Your task to perform on an android device: turn off notifications settings in the gmail app Image 0: 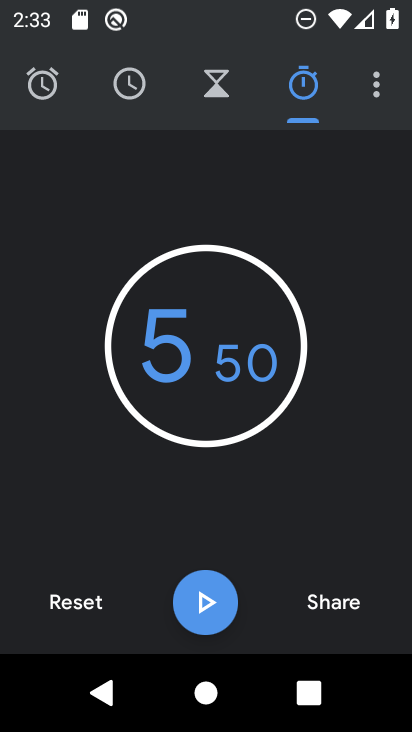
Step 0: press home button
Your task to perform on an android device: turn off notifications settings in the gmail app Image 1: 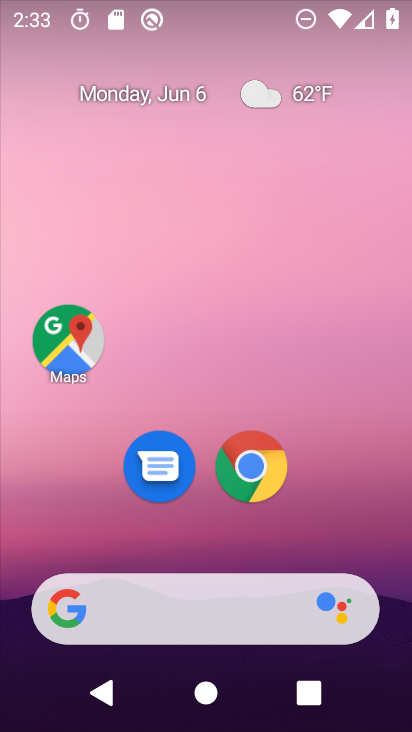
Step 1: drag from (214, 543) to (209, 142)
Your task to perform on an android device: turn off notifications settings in the gmail app Image 2: 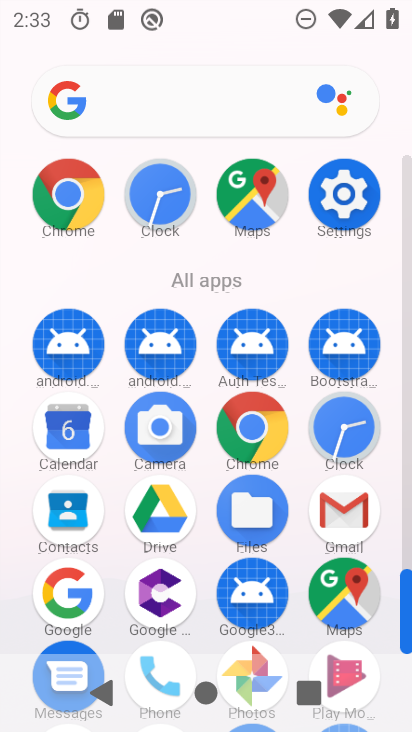
Step 2: click (330, 523)
Your task to perform on an android device: turn off notifications settings in the gmail app Image 3: 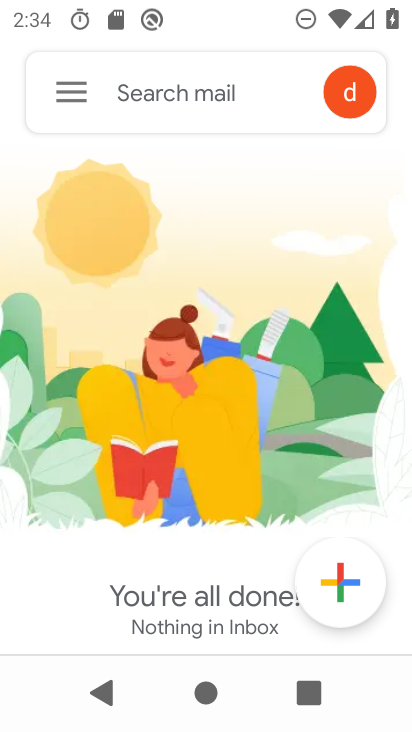
Step 3: click (79, 96)
Your task to perform on an android device: turn off notifications settings in the gmail app Image 4: 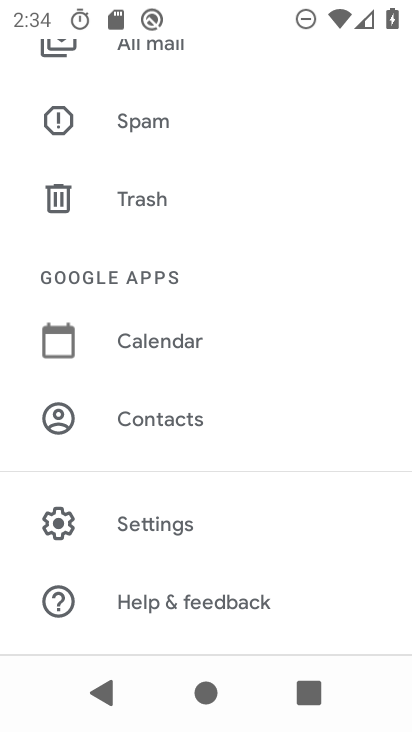
Step 4: drag from (188, 140) to (213, 399)
Your task to perform on an android device: turn off notifications settings in the gmail app Image 5: 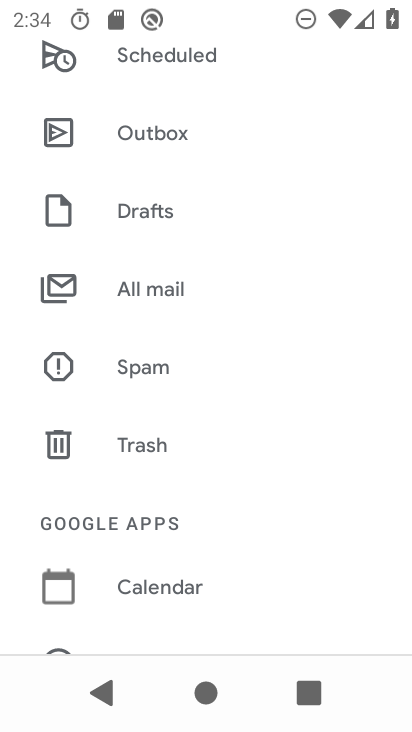
Step 5: drag from (199, 236) to (191, 467)
Your task to perform on an android device: turn off notifications settings in the gmail app Image 6: 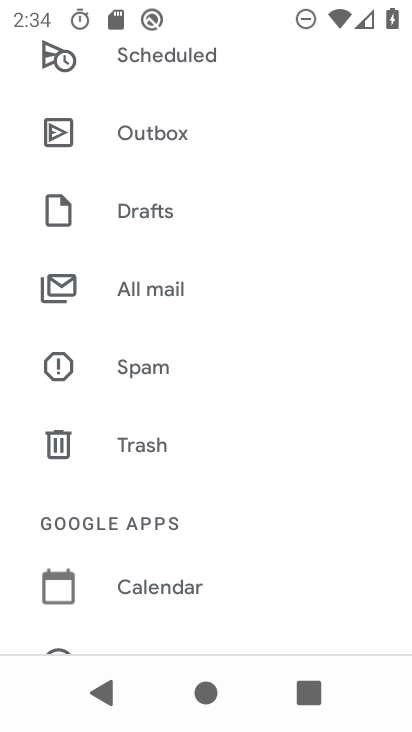
Step 6: drag from (189, 251) to (191, 559)
Your task to perform on an android device: turn off notifications settings in the gmail app Image 7: 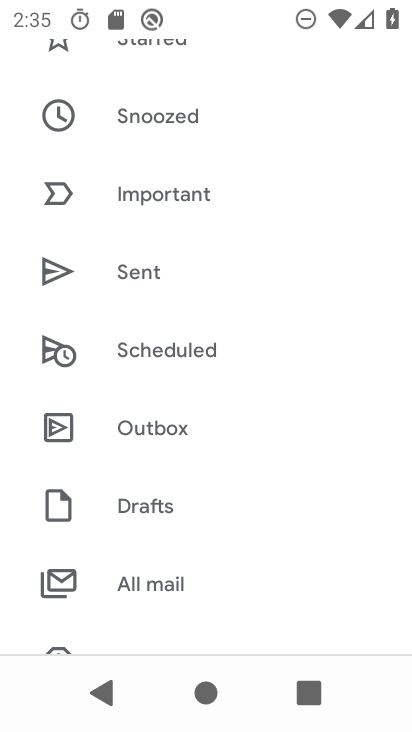
Step 7: drag from (175, 495) to (181, 88)
Your task to perform on an android device: turn off notifications settings in the gmail app Image 8: 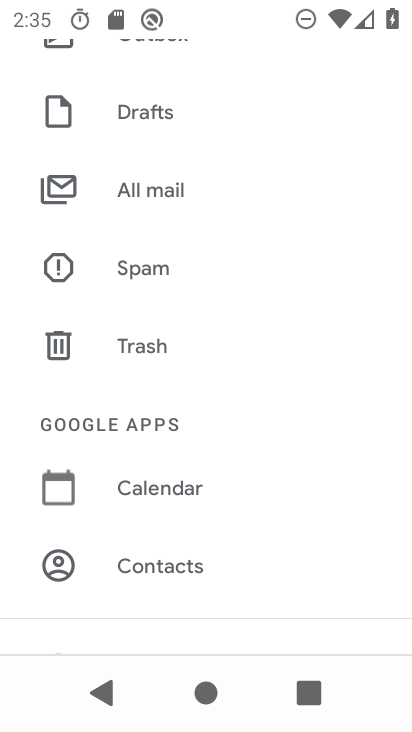
Step 8: drag from (186, 456) to (186, 191)
Your task to perform on an android device: turn off notifications settings in the gmail app Image 9: 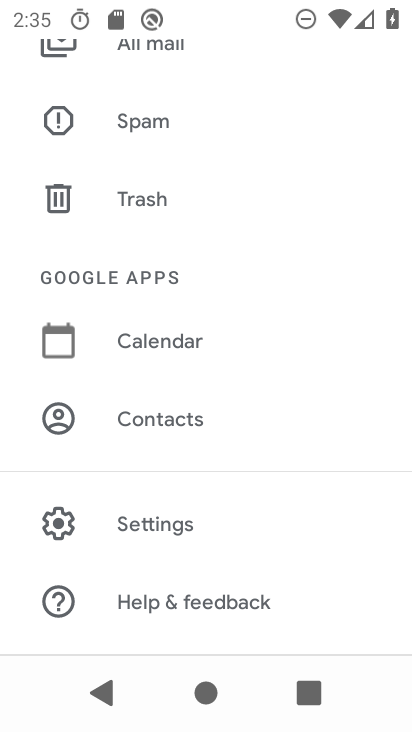
Step 9: click (158, 533)
Your task to perform on an android device: turn off notifications settings in the gmail app Image 10: 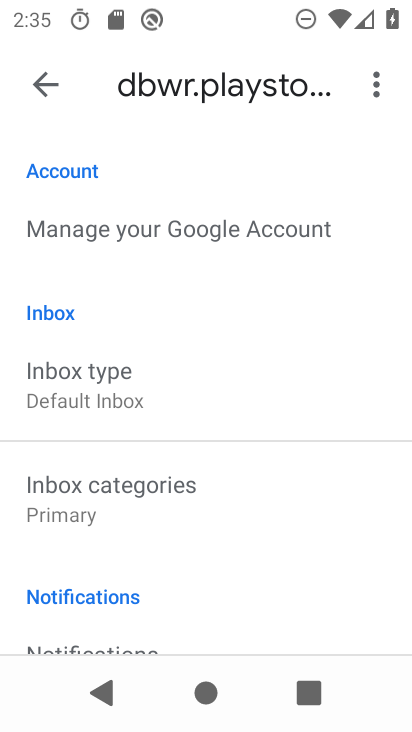
Step 10: drag from (143, 535) to (141, 301)
Your task to perform on an android device: turn off notifications settings in the gmail app Image 11: 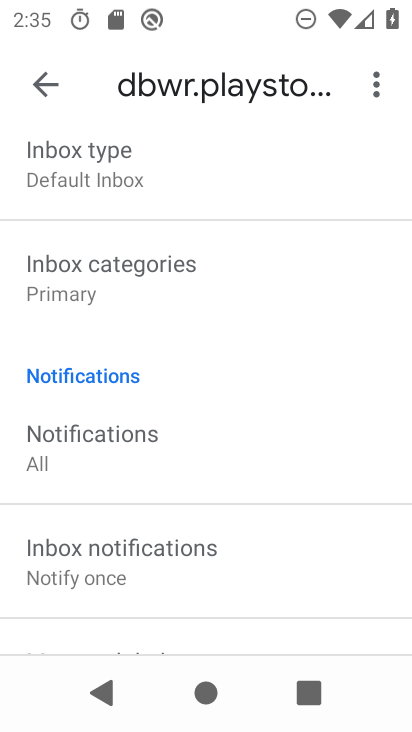
Step 11: drag from (173, 610) to (173, 374)
Your task to perform on an android device: turn off notifications settings in the gmail app Image 12: 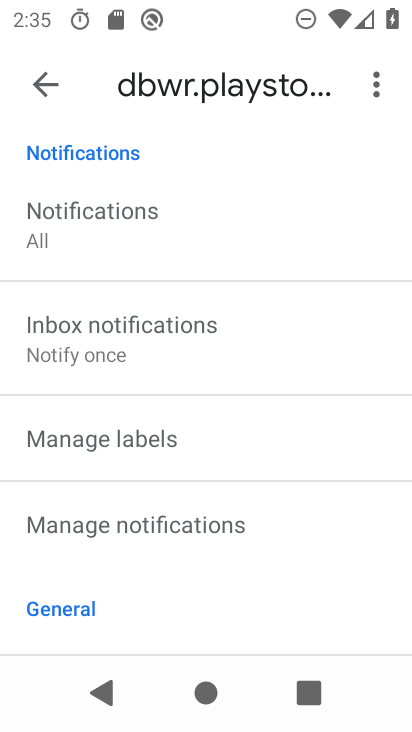
Step 12: click (159, 526)
Your task to perform on an android device: turn off notifications settings in the gmail app Image 13: 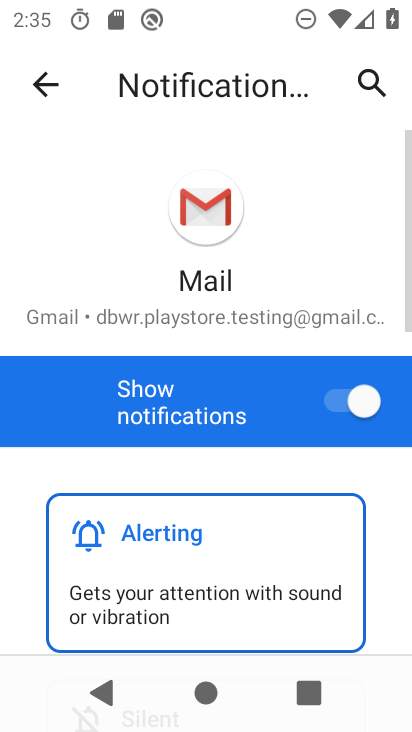
Step 13: click (338, 402)
Your task to perform on an android device: turn off notifications settings in the gmail app Image 14: 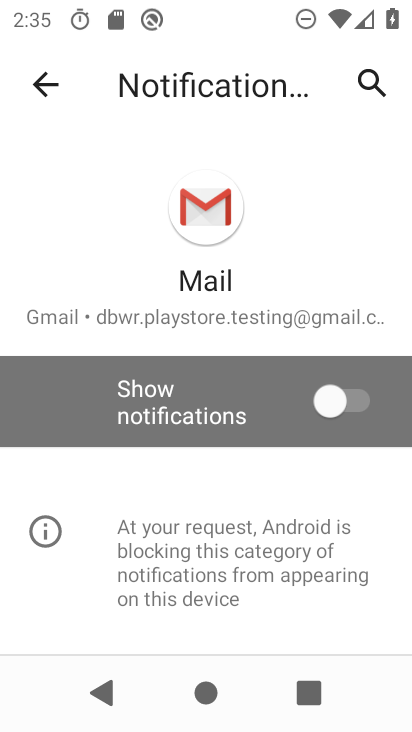
Step 14: task complete